Your task to perform on an android device: What's on my calendar today? Image 0: 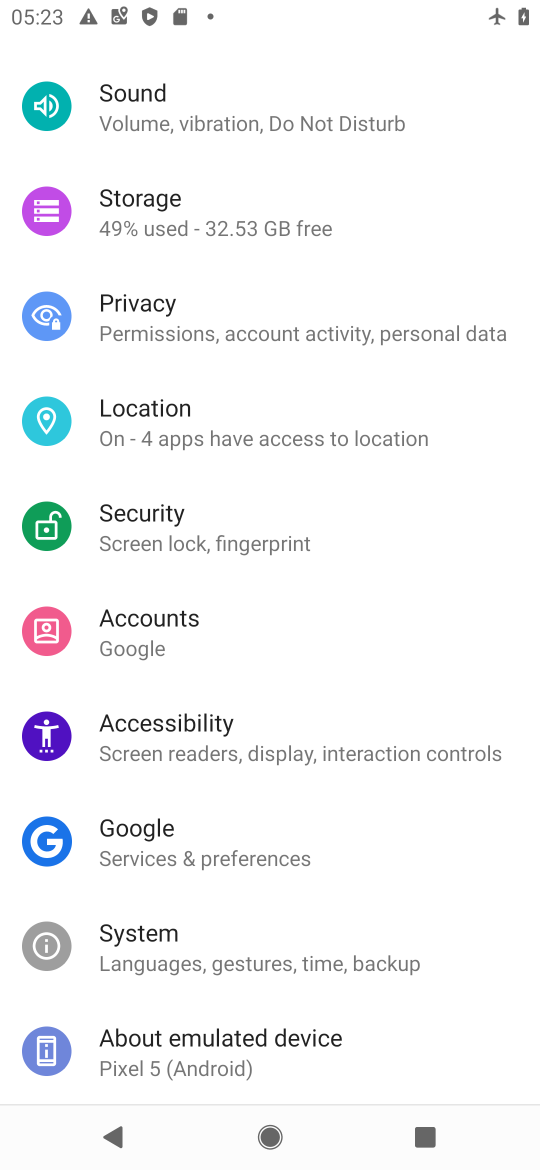
Step 0: press back button
Your task to perform on an android device: What's on my calendar today? Image 1: 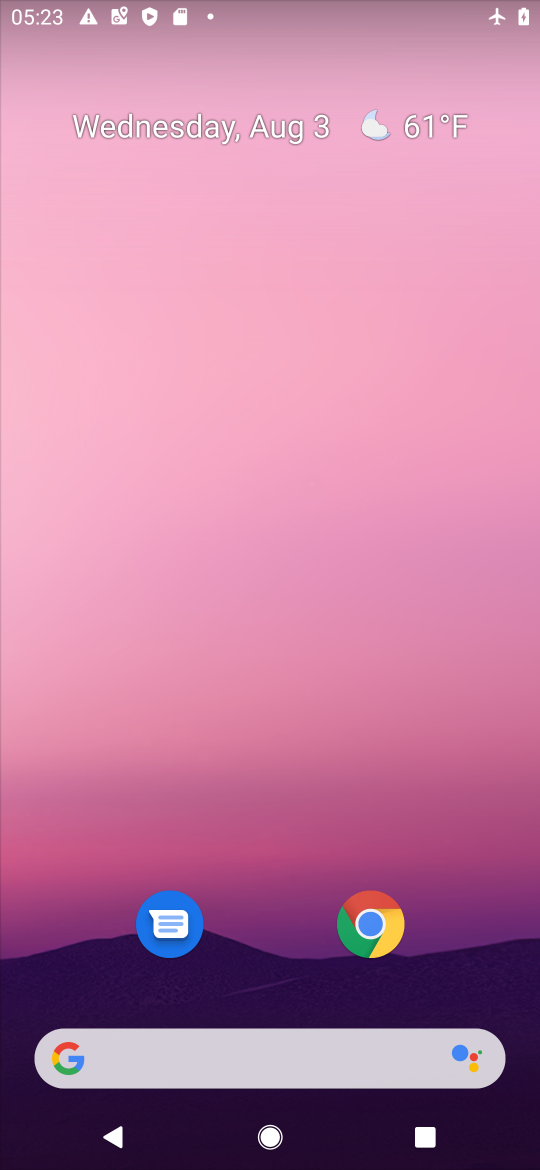
Step 1: drag from (261, 946) to (270, 245)
Your task to perform on an android device: What's on my calendar today? Image 2: 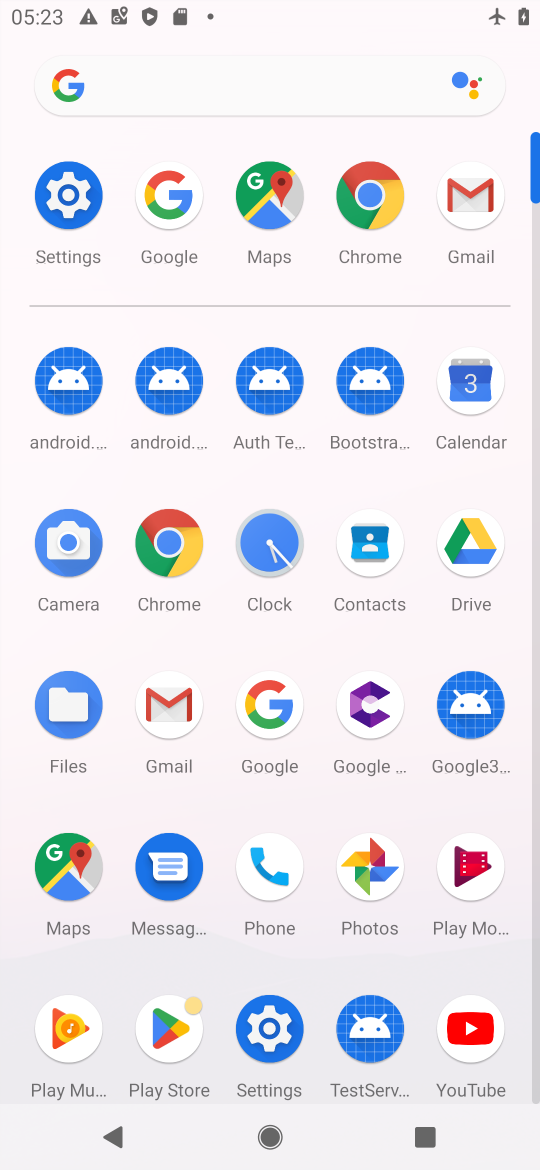
Step 2: click (462, 408)
Your task to perform on an android device: What's on my calendar today? Image 3: 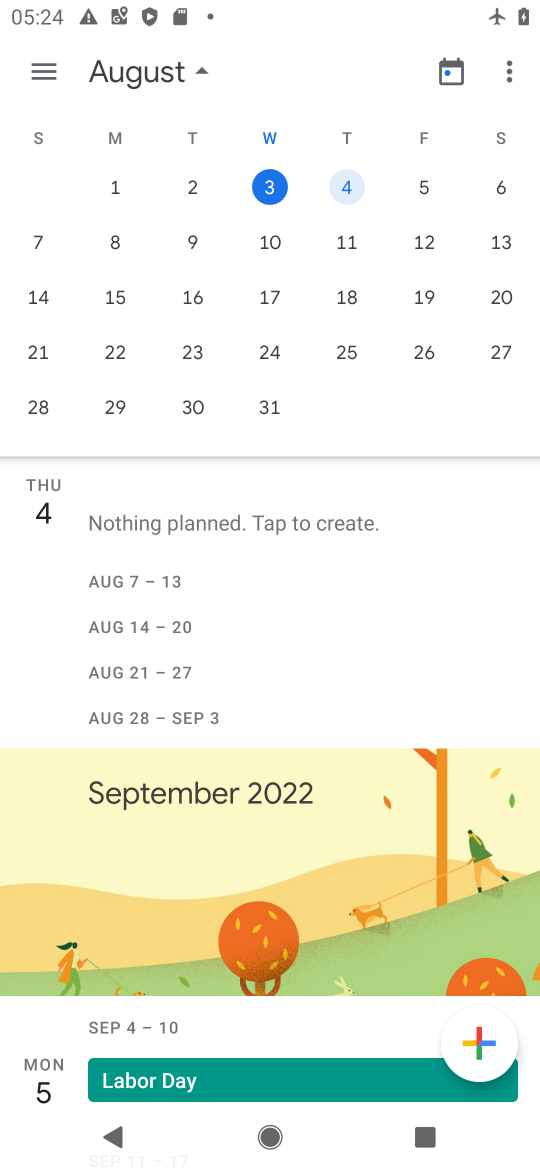
Step 3: click (260, 180)
Your task to perform on an android device: What's on my calendar today? Image 4: 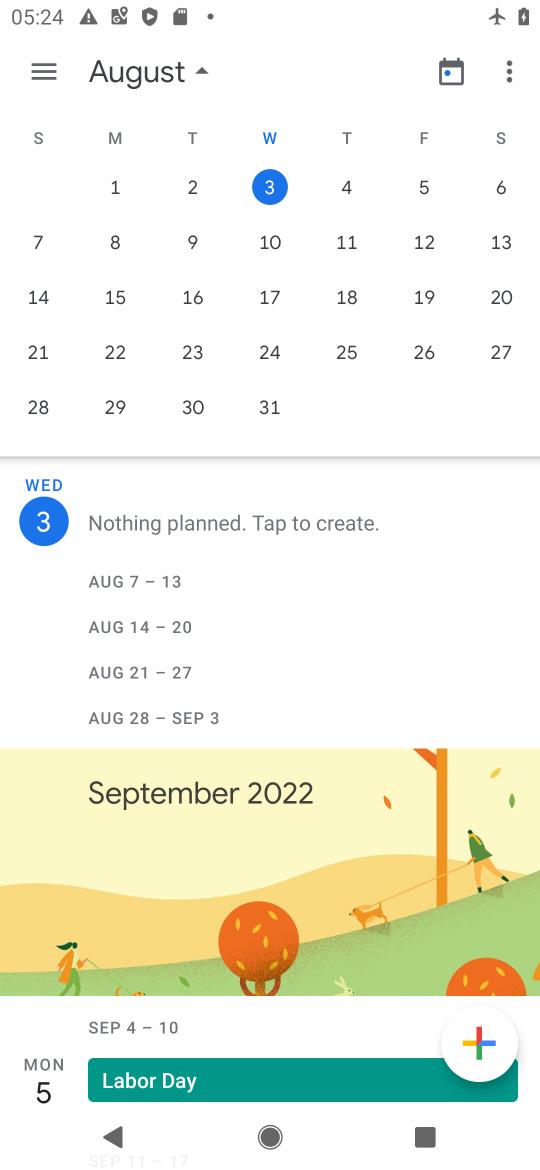
Step 4: task complete